Your task to perform on an android device: Go to display settings Image 0: 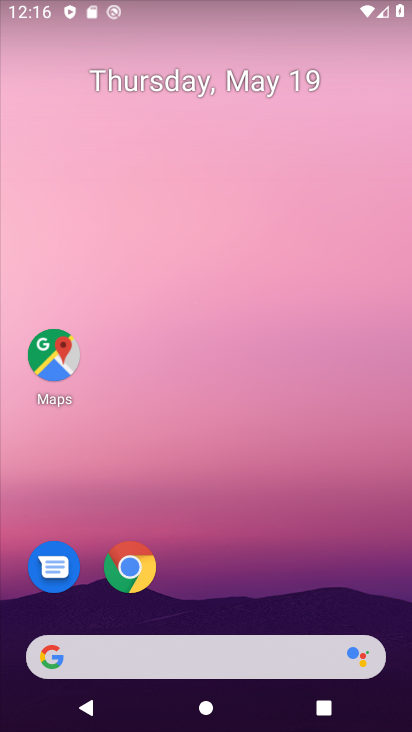
Step 0: drag from (305, 533) to (246, 78)
Your task to perform on an android device: Go to display settings Image 1: 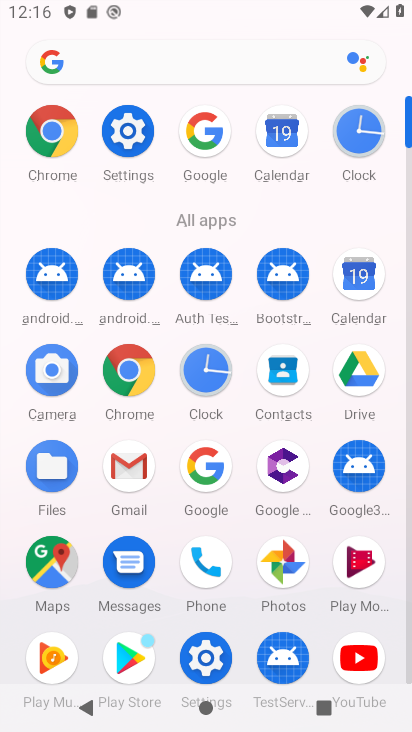
Step 1: click (129, 123)
Your task to perform on an android device: Go to display settings Image 2: 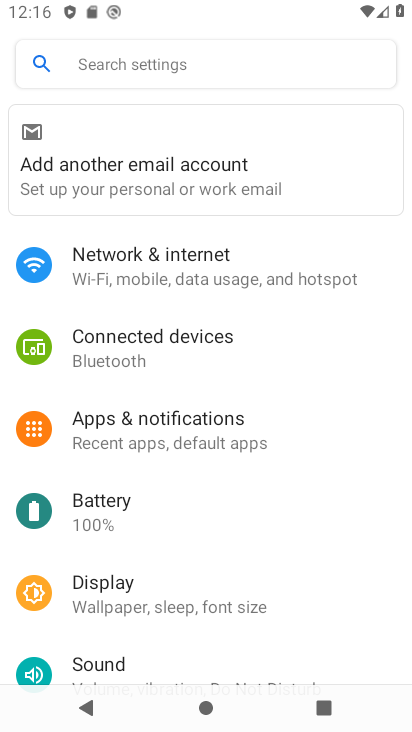
Step 2: click (224, 602)
Your task to perform on an android device: Go to display settings Image 3: 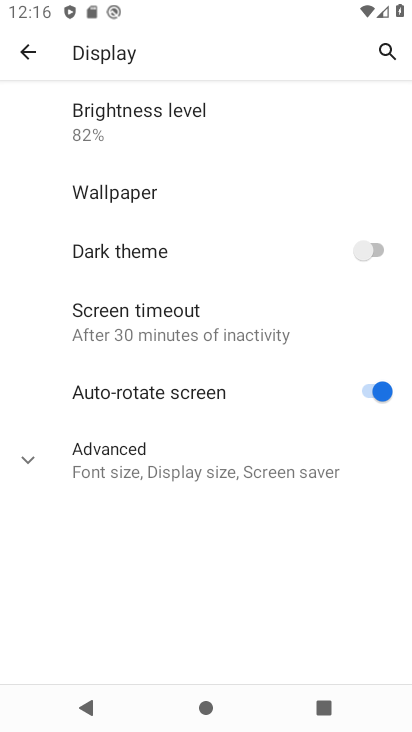
Step 3: task complete